Your task to perform on an android device: turn pop-ups off in chrome Image 0: 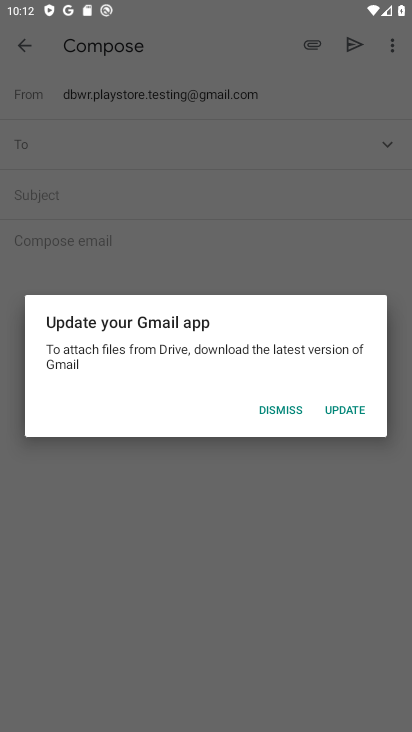
Step 0: press home button
Your task to perform on an android device: turn pop-ups off in chrome Image 1: 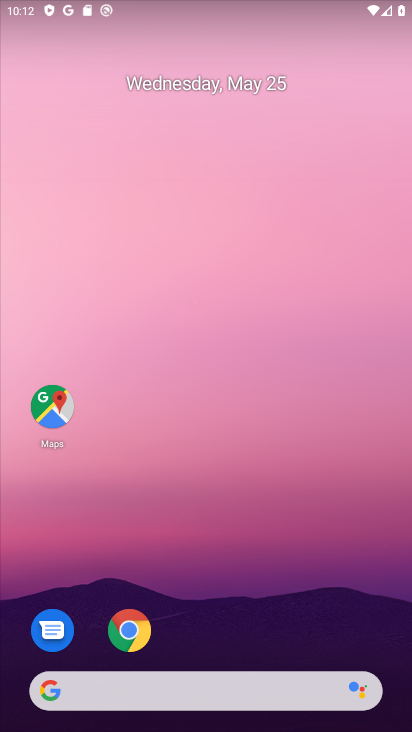
Step 1: drag from (350, 596) to (293, 50)
Your task to perform on an android device: turn pop-ups off in chrome Image 2: 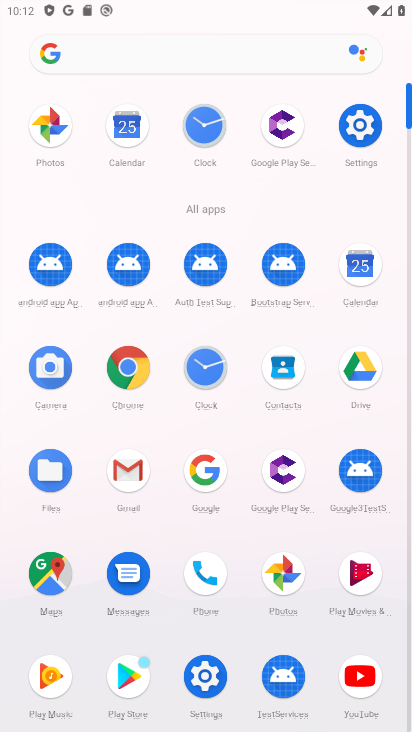
Step 2: click (134, 385)
Your task to perform on an android device: turn pop-ups off in chrome Image 3: 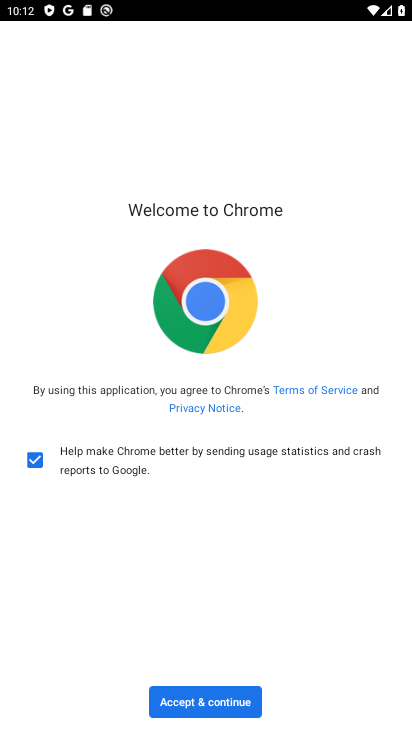
Step 3: click (204, 699)
Your task to perform on an android device: turn pop-ups off in chrome Image 4: 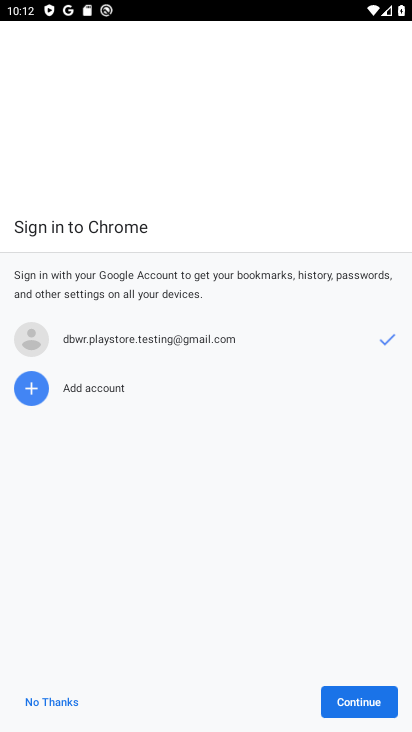
Step 4: click (335, 708)
Your task to perform on an android device: turn pop-ups off in chrome Image 5: 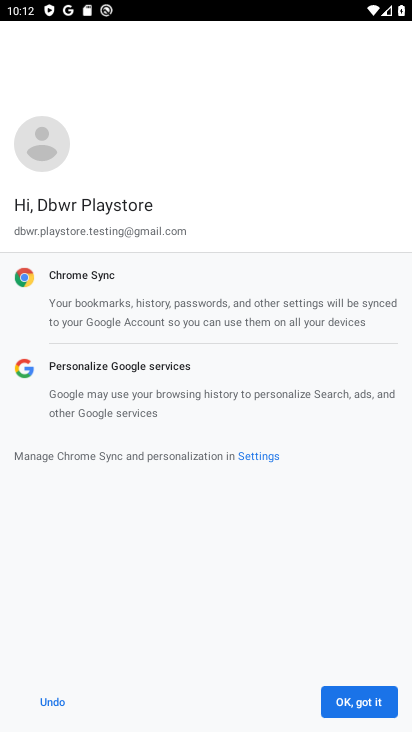
Step 5: click (336, 708)
Your task to perform on an android device: turn pop-ups off in chrome Image 6: 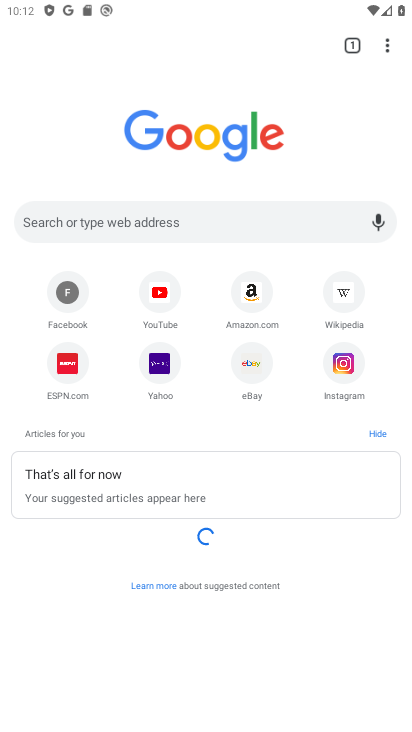
Step 6: click (395, 46)
Your task to perform on an android device: turn pop-ups off in chrome Image 7: 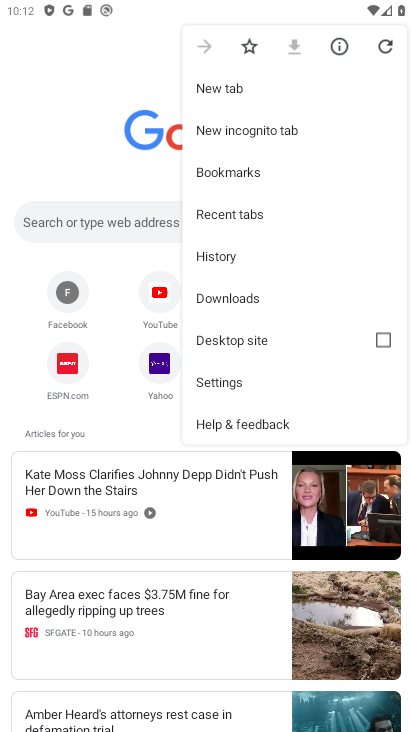
Step 7: click (252, 375)
Your task to perform on an android device: turn pop-ups off in chrome Image 8: 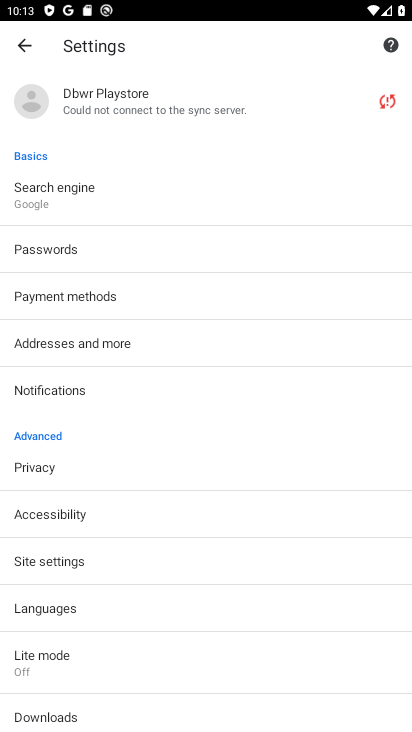
Step 8: drag from (217, 628) to (196, 427)
Your task to perform on an android device: turn pop-ups off in chrome Image 9: 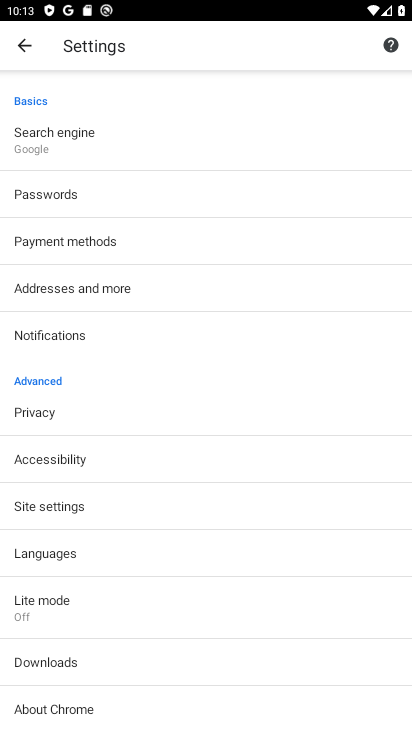
Step 9: drag from (176, 236) to (144, 485)
Your task to perform on an android device: turn pop-ups off in chrome Image 10: 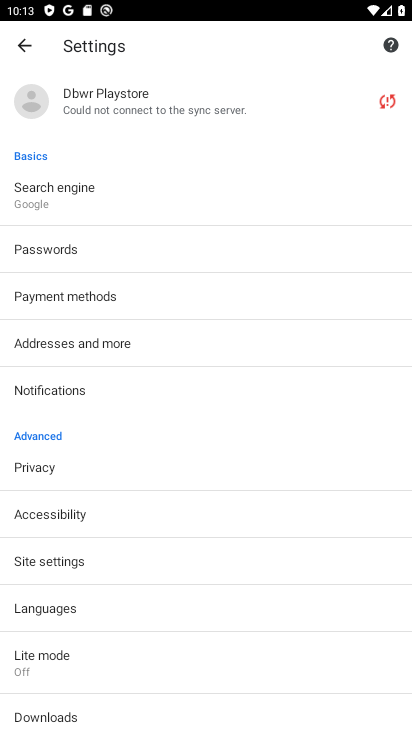
Step 10: click (127, 566)
Your task to perform on an android device: turn pop-ups off in chrome Image 11: 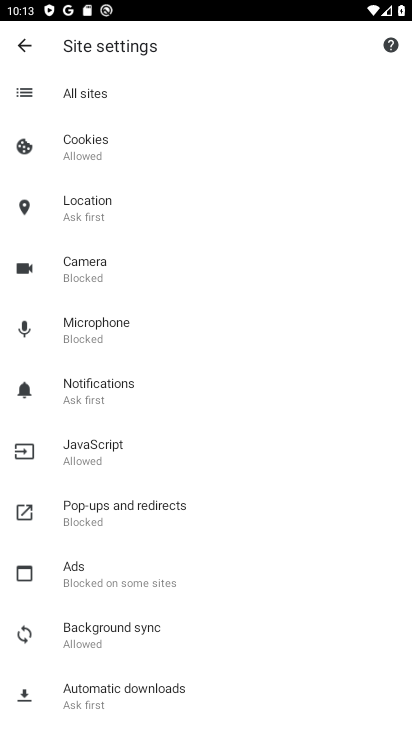
Step 11: click (153, 512)
Your task to perform on an android device: turn pop-ups off in chrome Image 12: 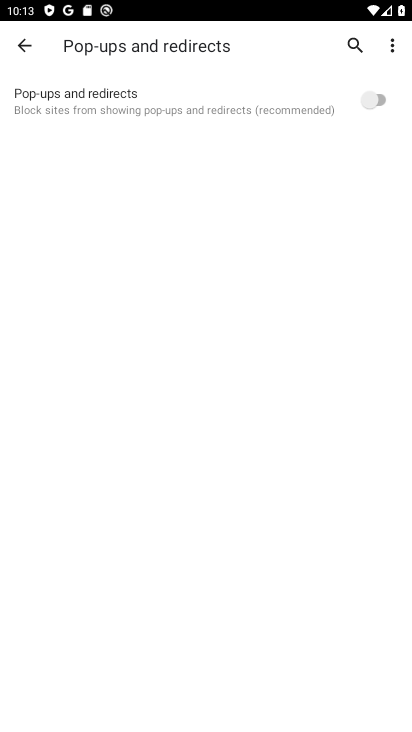
Step 12: task complete